Your task to perform on an android device: Open the stopwatch Image 0: 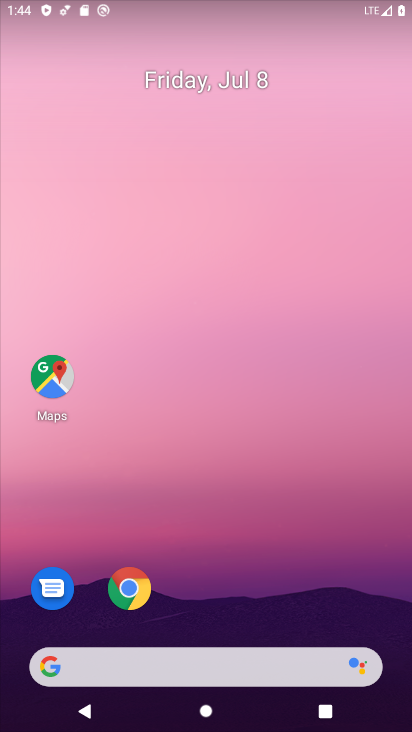
Step 0: press home button
Your task to perform on an android device: Open the stopwatch Image 1: 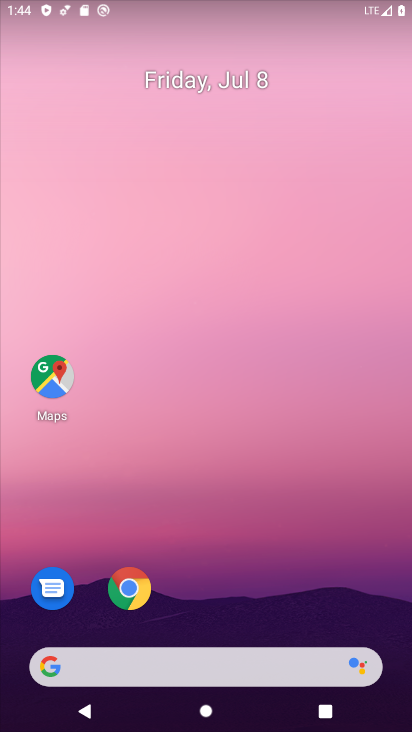
Step 1: drag from (199, 618) to (257, 4)
Your task to perform on an android device: Open the stopwatch Image 2: 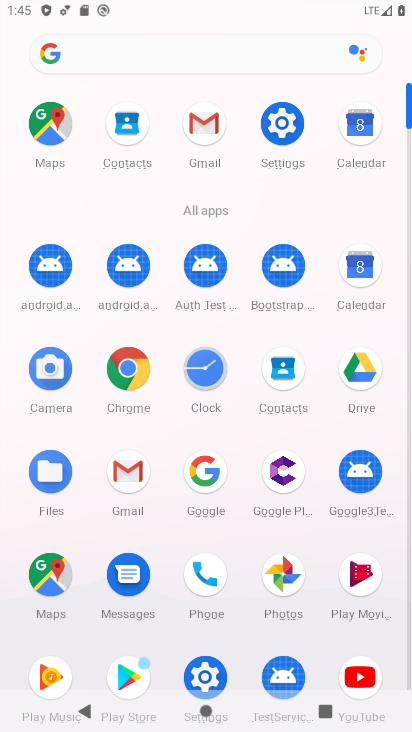
Step 2: click (203, 371)
Your task to perform on an android device: Open the stopwatch Image 3: 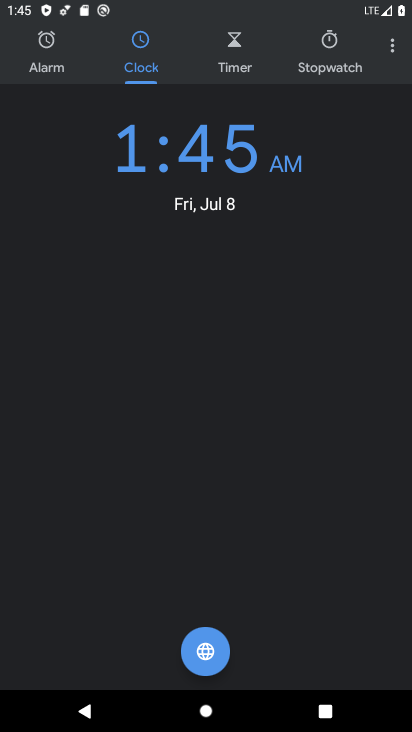
Step 3: click (330, 41)
Your task to perform on an android device: Open the stopwatch Image 4: 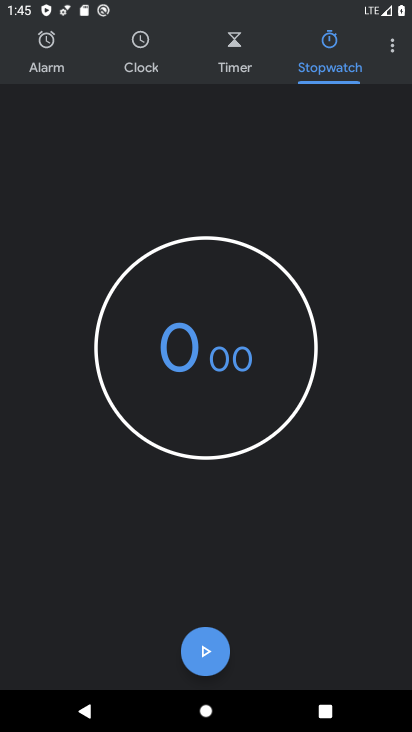
Step 4: task complete